Your task to perform on an android device: add a contact Image 0: 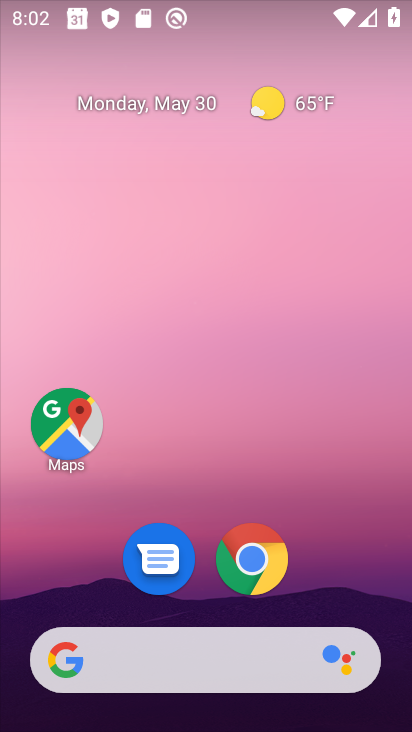
Step 0: drag from (229, 464) to (235, 6)
Your task to perform on an android device: add a contact Image 1: 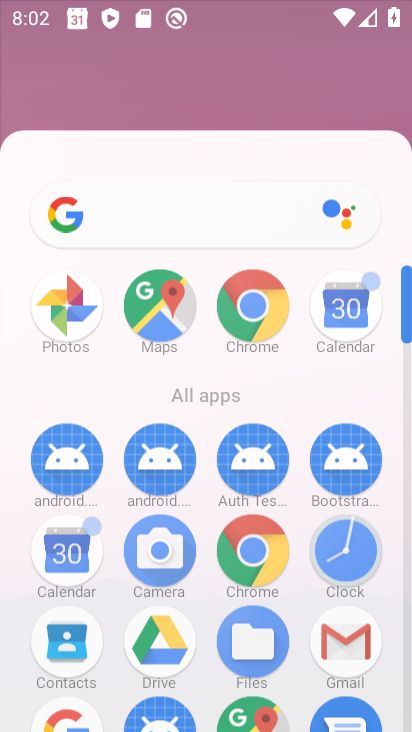
Step 1: click (236, 12)
Your task to perform on an android device: add a contact Image 2: 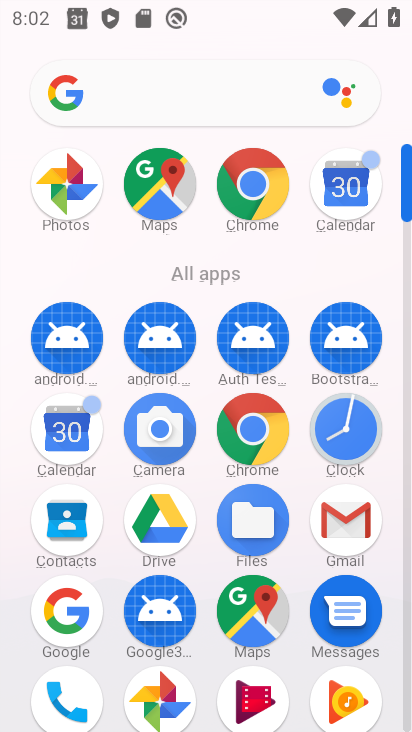
Step 2: click (64, 511)
Your task to perform on an android device: add a contact Image 3: 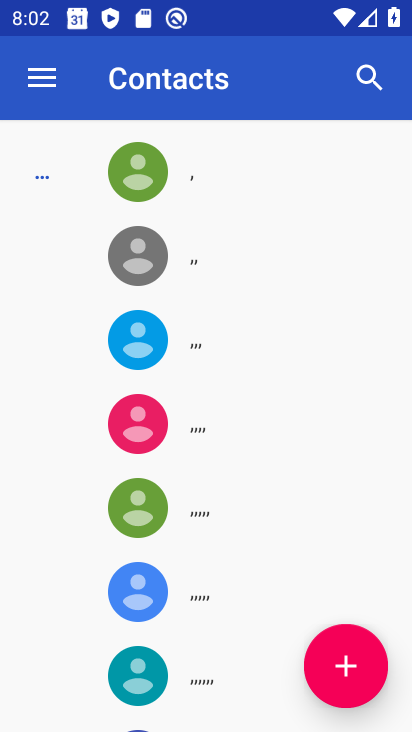
Step 3: click (363, 677)
Your task to perform on an android device: add a contact Image 4: 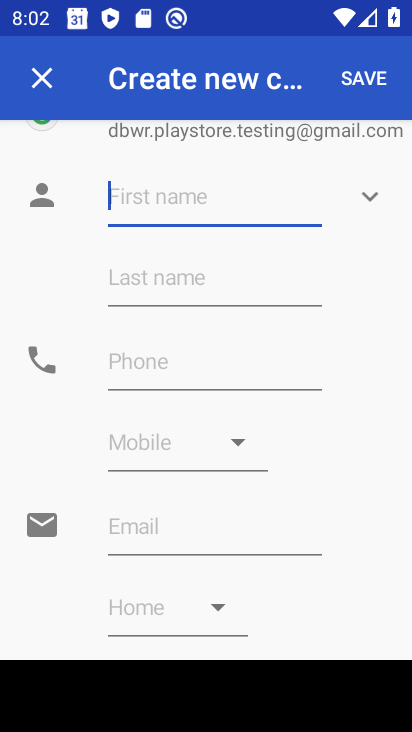
Step 4: click (145, 192)
Your task to perform on an android device: add a contact Image 5: 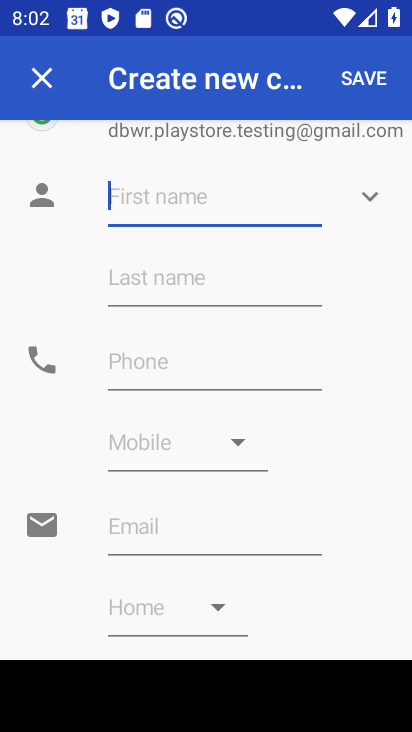
Step 5: type "hgh"
Your task to perform on an android device: add a contact Image 6: 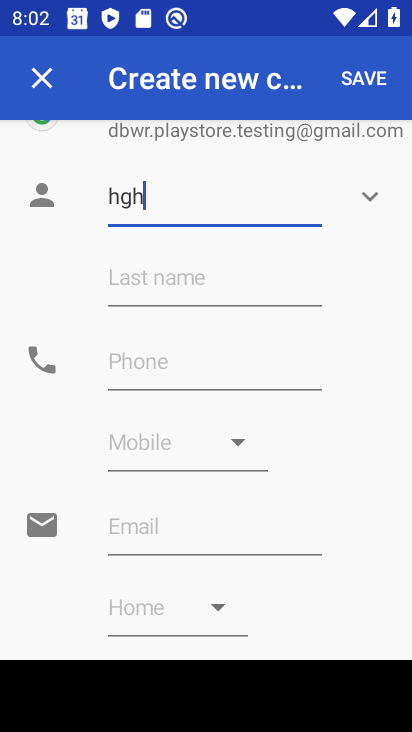
Step 6: click (143, 349)
Your task to perform on an android device: add a contact Image 7: 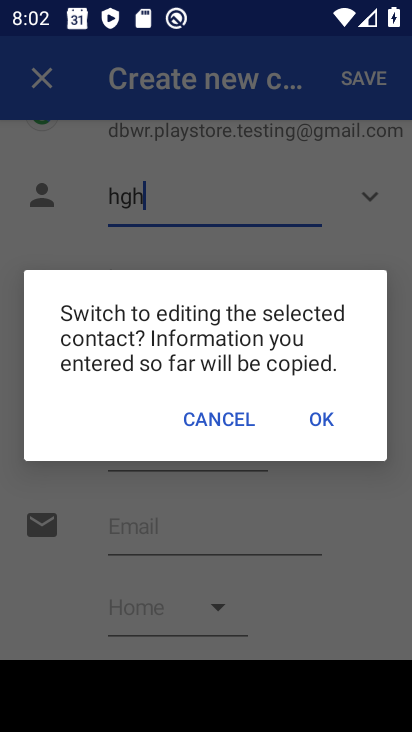
Step 7: click (319, 415)
Your task to perform on an android device: add a contact Image 8: 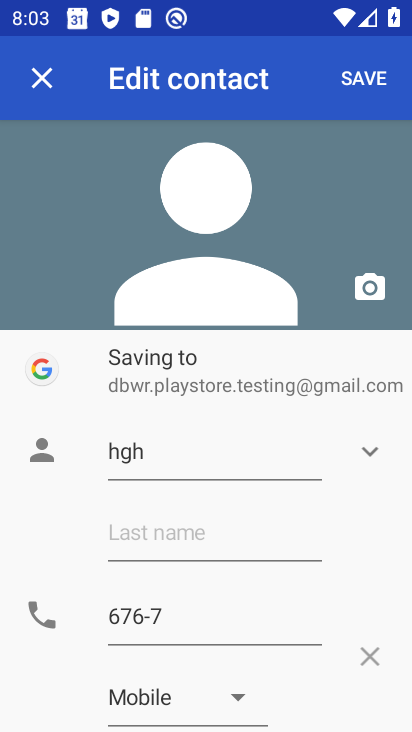
Step 8: click (356, 79)
Your task to perform on an android device: add a contact Image 9: 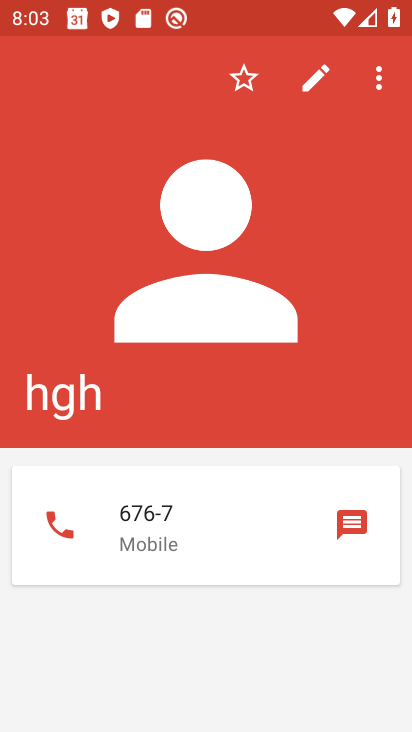
Step 9: task complete